Your task to perform on an android device: turn on javascript in the chrome app Image 0: 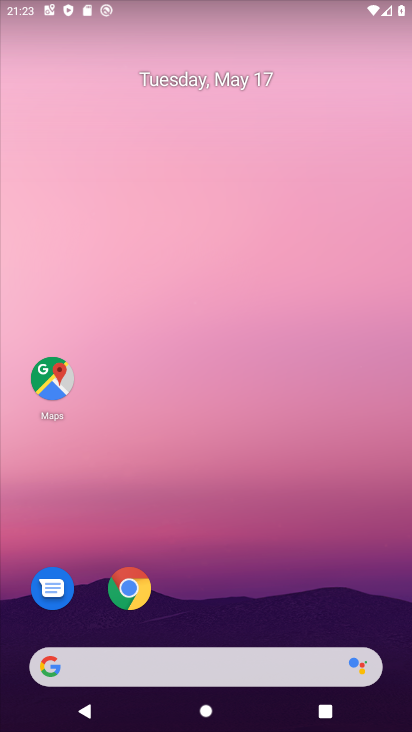
Step 0: click (136, 581)
Your task to perform on an android device: turn on javascript in the chrome app Image 1: 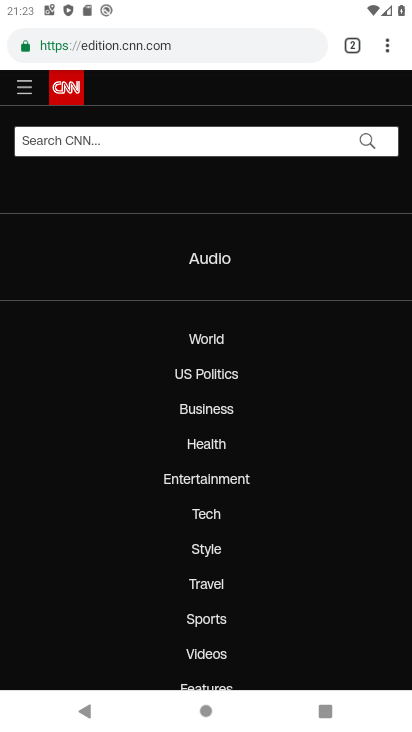
Step 1: click (387, 54)
Your task to perform on an android device: turn on javascript in the chrome app Image 2: 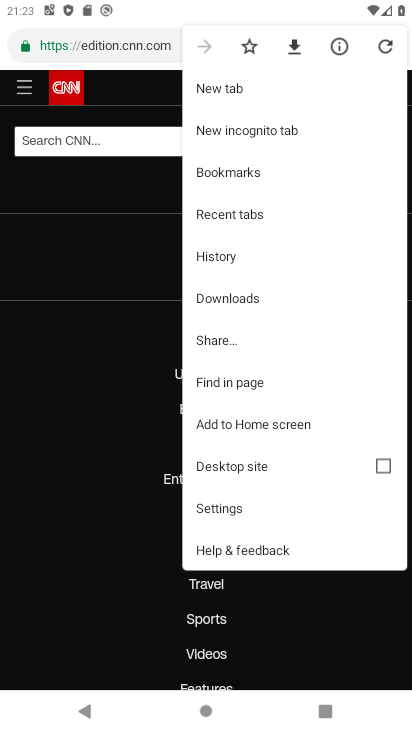
Step 2: click (244, 506)
Your task to perform on an android device: turn on javascript in the chrome app Image 3: 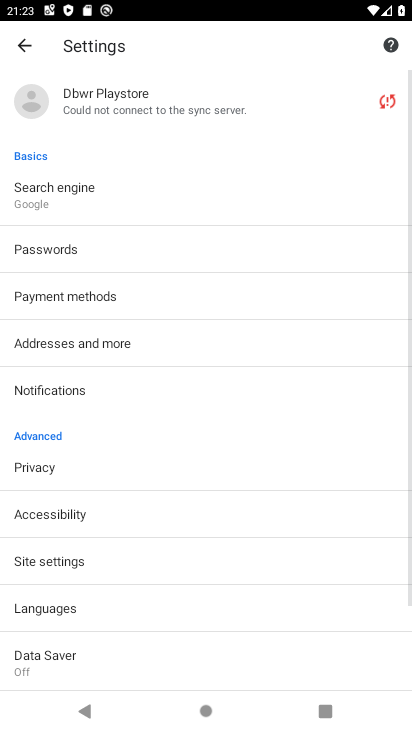
Step 3: drag from (67, 637) to (29, 418)
Your task to perform on an android device: turn on javascript in the chrome app Image 4: 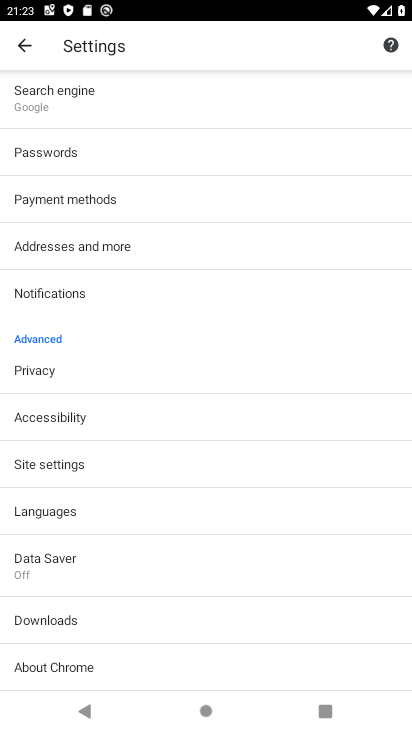
Step 4: click (67, 469)
Your task to perform on an android device: turn on javascript in the chrome app Image 5: 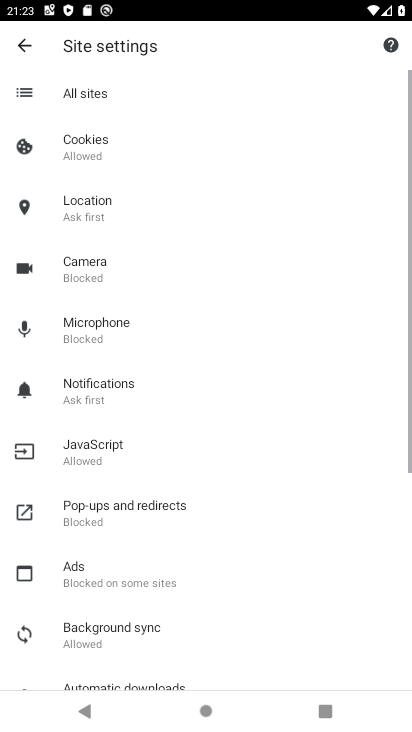
Step 5: click (78, 447)
Your task to perform on an android device: turn on javascript in the chrome app Image 6: 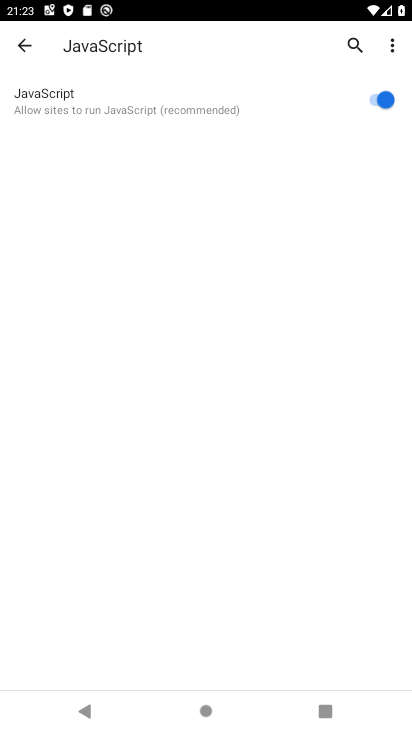
Step 6: task complete